Your task to perform on an android device: see creations saved in the google photos Image 0: 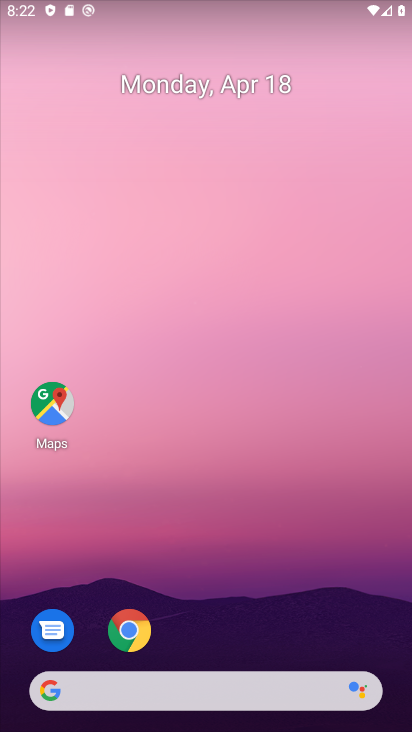
Step 0: drag from (236, 636) to (400, 124)
Your task to perform on an android device: see creations saved in the google photos Image 1: 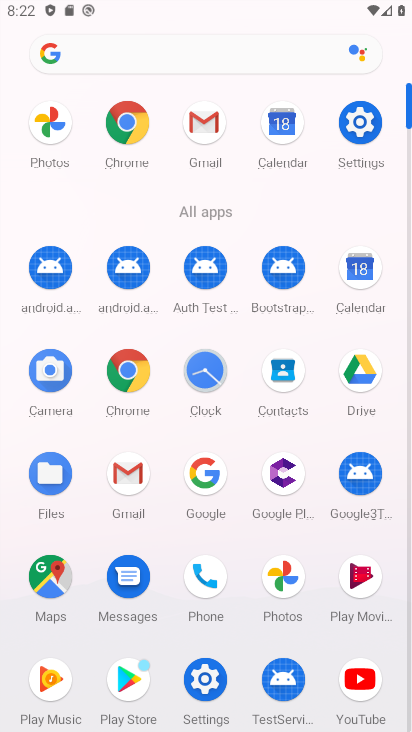
Step 1: click (282, 590)
Your task to perform on an android device: see creations saved in the google photos Image 2: 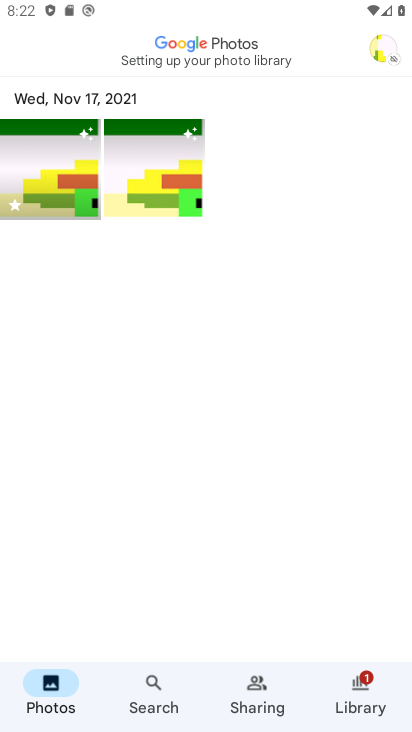
Step 2: click (364, 688)
Your task to perform on an android device: see creations saved in the google photos Image 3: 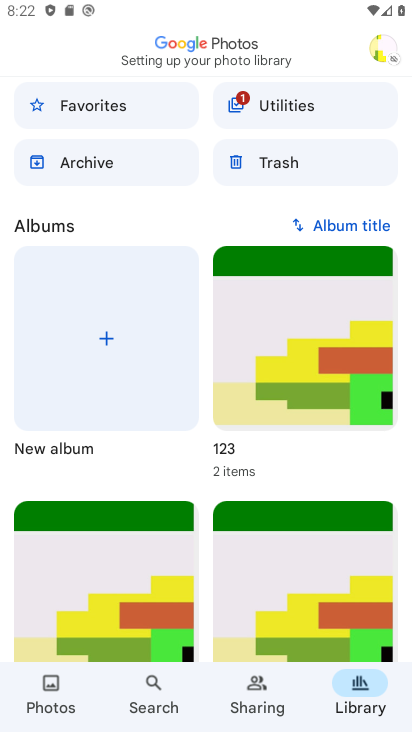
Step 3: drag from (203, 585) to (256, 677)
Your task to perform on an android device: see creations saved in the google photos Image 4: 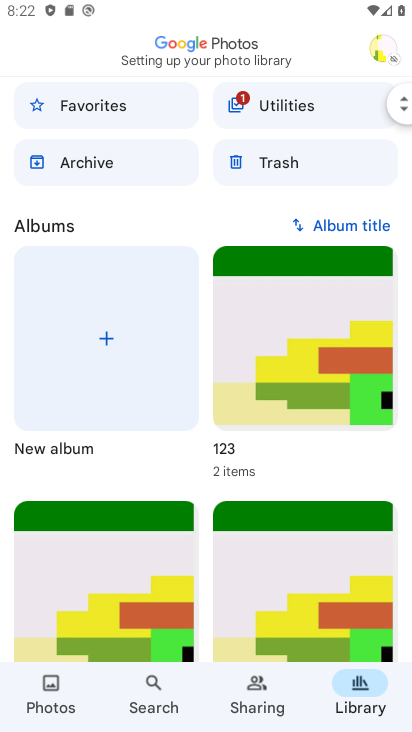
Step 4: drag from (213, 219) to (208, 408)
Your task to perform on an android device: see creations saved in the google photos Image 5: 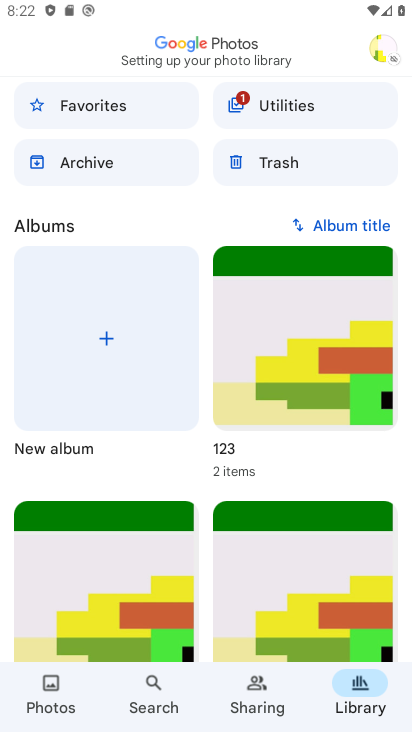
Step 5: click (107, 151)
Your task to perform on an android device: see creations saved in the google photos Image 6: 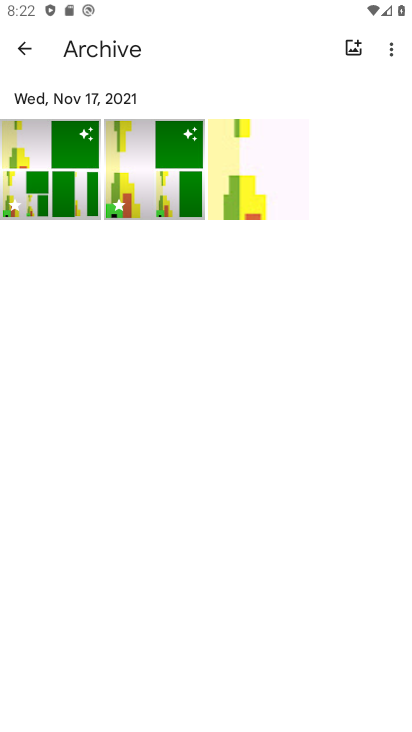
Step 6: task complete